Your task to perform on an android device: snooze an email in the gmail app Image 0: 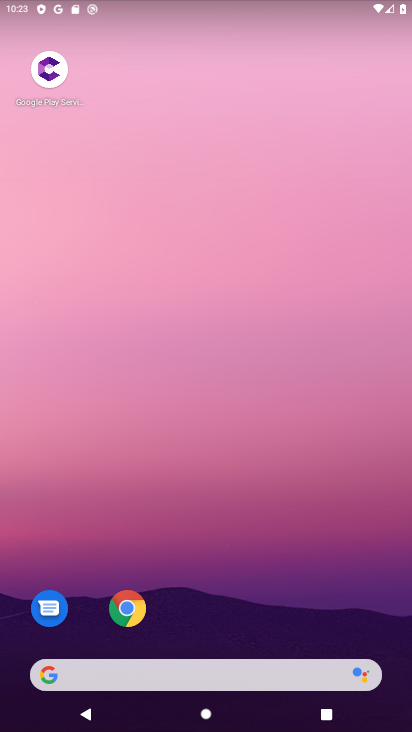
Step 0: drag from (223, 602) to (289, 98)
Your task to perform on an android device: snooze an email in the gmail app Image 1: 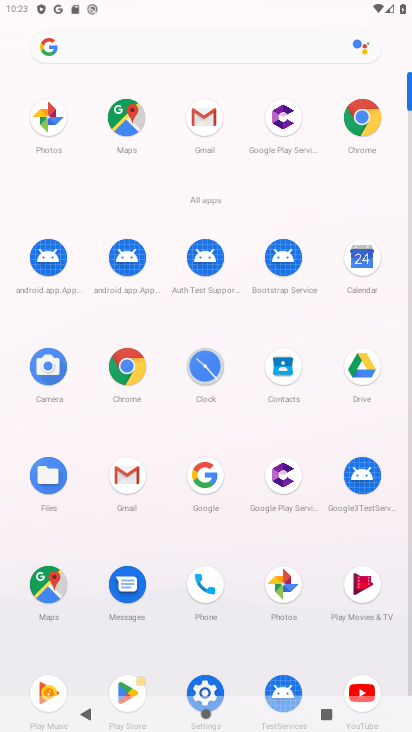
Step 1: click (131, 471)
Your task to perform on an android device: snooze an email in the gmail app Image 2: 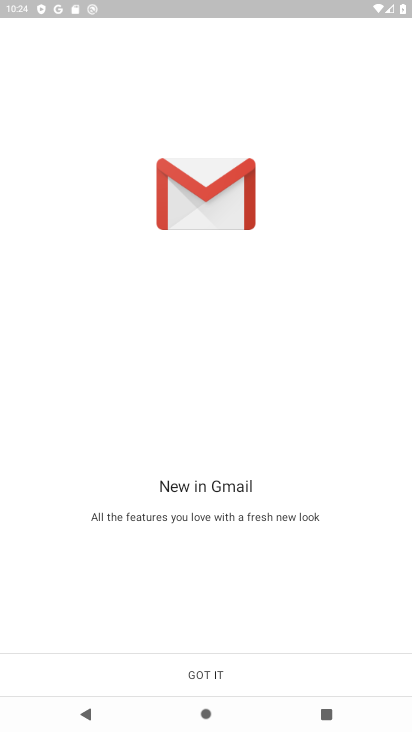
Step 2: click (205, 670)
Your task to perform on an android device: snooze an email in the gmail app Image 3: 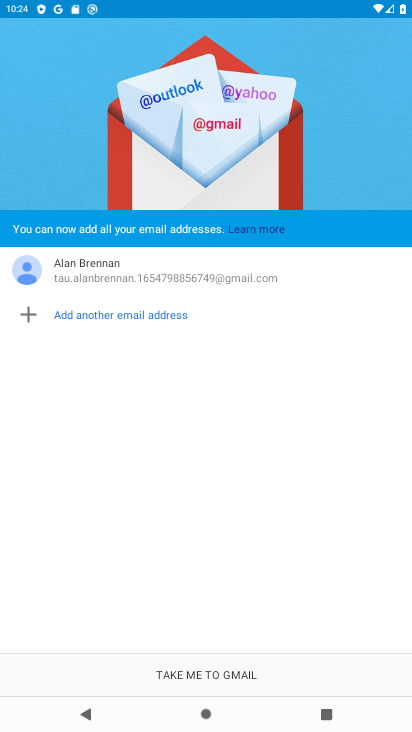
Step 3: click (209, 674)
Your task to perform on an android device: snooze an email in the gmail app Image 4: 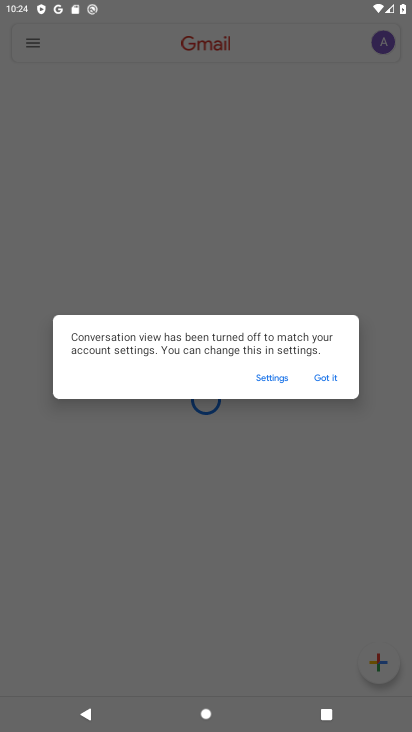
Step 4: click (320, 374)
Your task to perform on an android device: snooze an email in the gmail app Image 5: 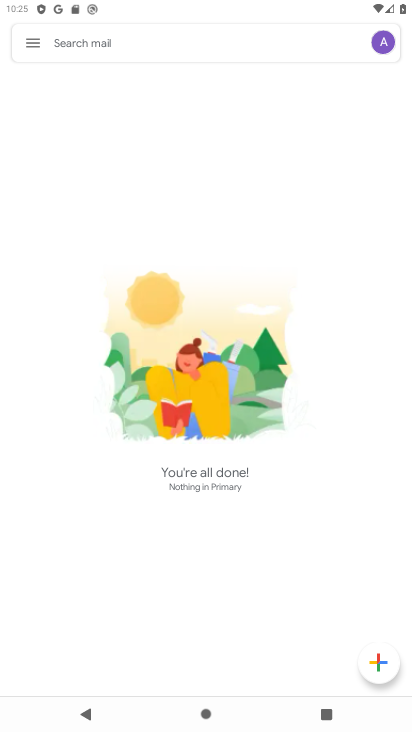
Step 5: task complete